Your task to perform on an android device: What's the weather today? Image 0: 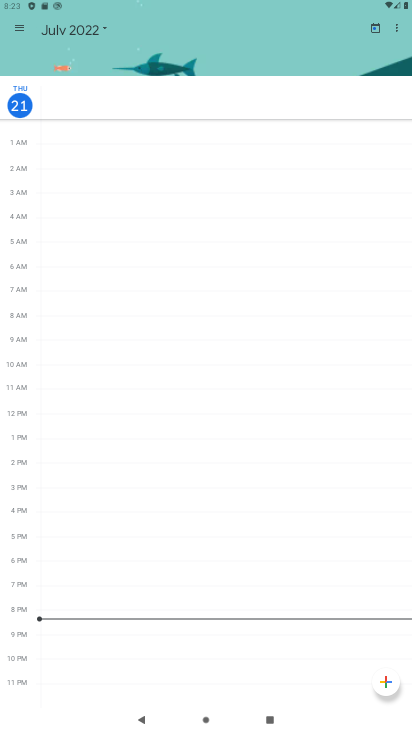
Step 0: press home button
Your task to perform on an android device: What's the weather today? Image 1: 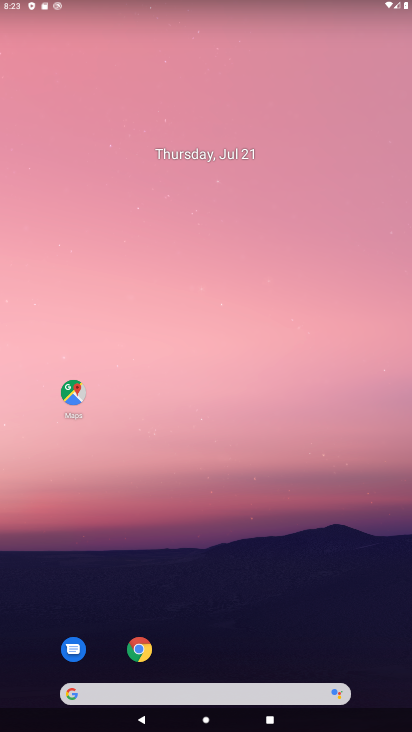
Step 1: click (187, 693)
Your task to perform on an android device: What's the weather today? Image 2: 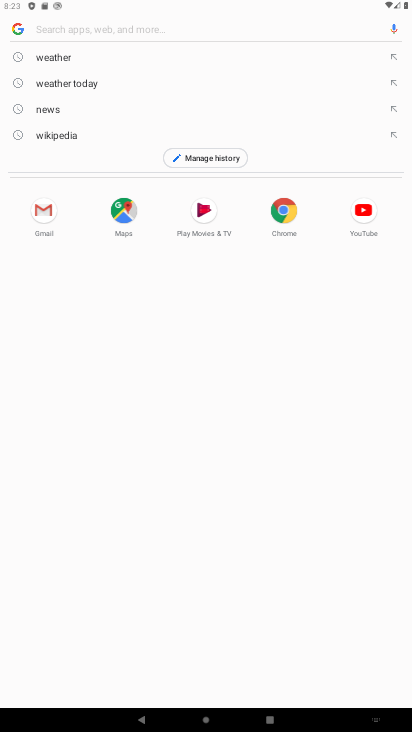
Step 2: click (93, 60)
Your task to perform on an android device: What's the weather today? Image 3: 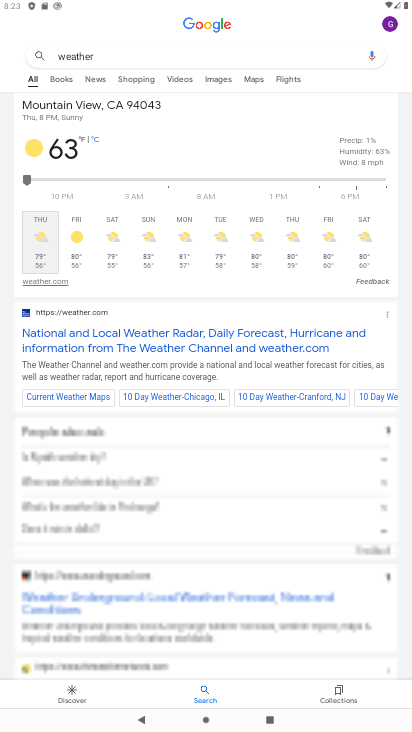
Step 3: task complete